Your task to perform on an android device: open sync settings in chrome Image 0: 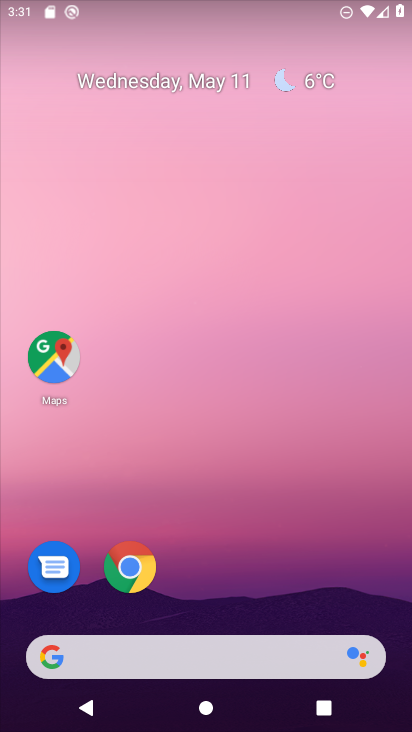
Step 0: click (141, 567)
Your task to perform on an android device: open sync settings in chrome Image 1: 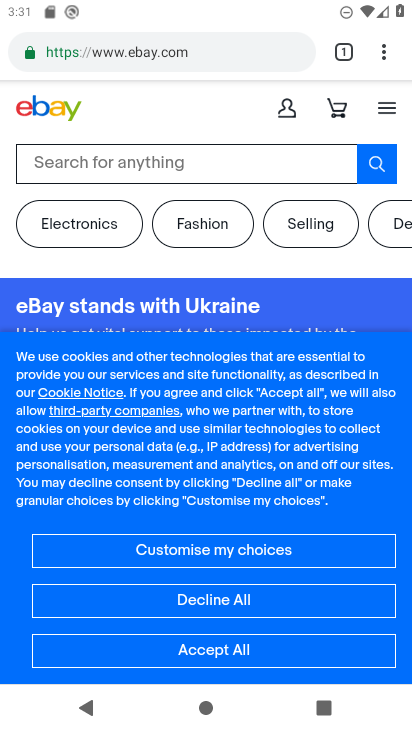
Step 1: click (386, 50)
Your task to perform on an android device: open sync settings in chrome Image 2: 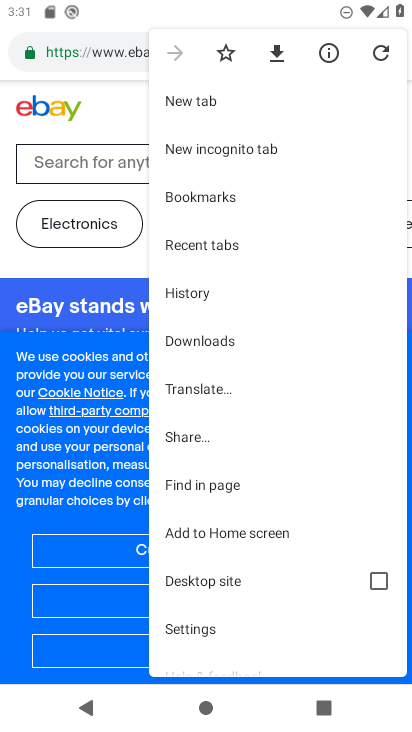
Step 2: click (218, 616)
Your task to perform on an android device: open sync settings in chrome Image 3: 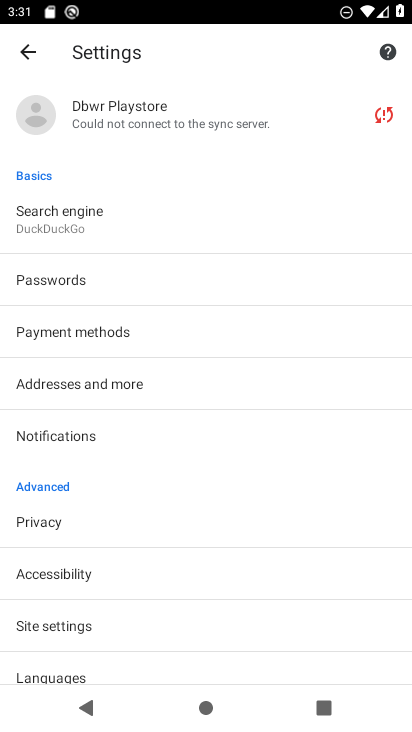
Step 3: click (122, 104)
Your task to perform on an android device: open sync settings in chrome Image 4: 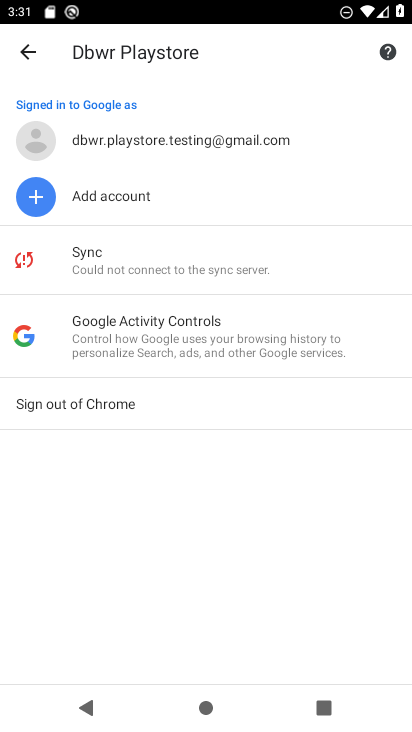
Step 4: click (146, 251)
Your task to perform on an android device: open sync settings in chrome Image 5: 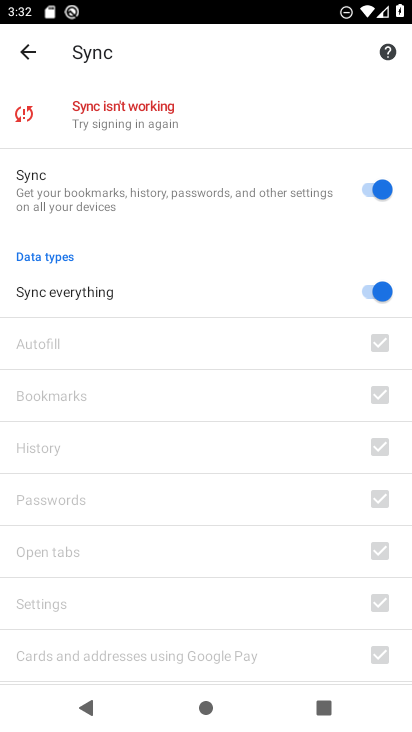
Step 5: task complete